Your task to perform on an android device: Open Maps and search for coffee Image 0: 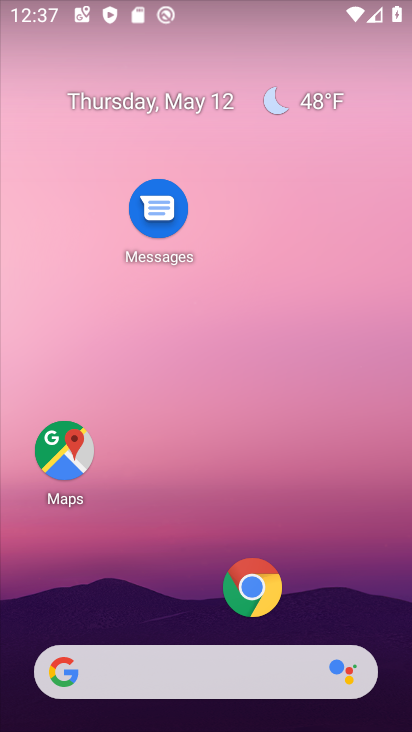
Step 0: drag from (213, 645) to (152, 18)
Your task to perform on an android device: Open Maps and search for coffee Image 1: 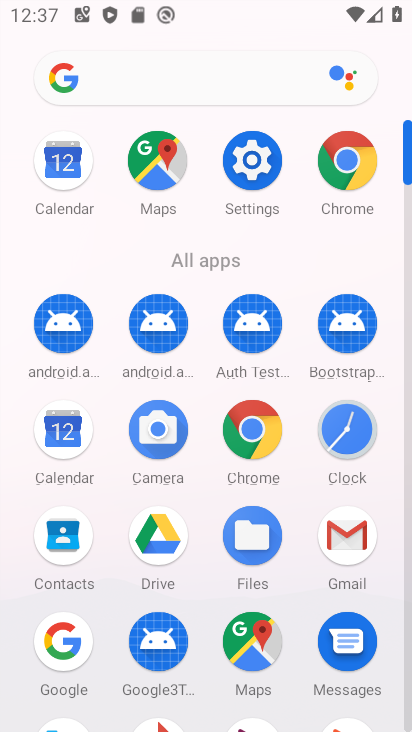
Step 1: click (247, 628)
Your task to perform on an android device: Open Maps and search for coffee Image 2: 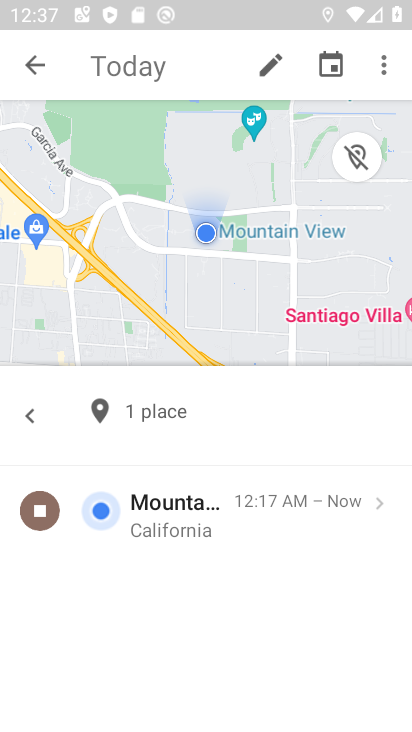
Step 2: click (21, 57)
Your task to perform on an android device: Open Maps and search for coffee Image 3: 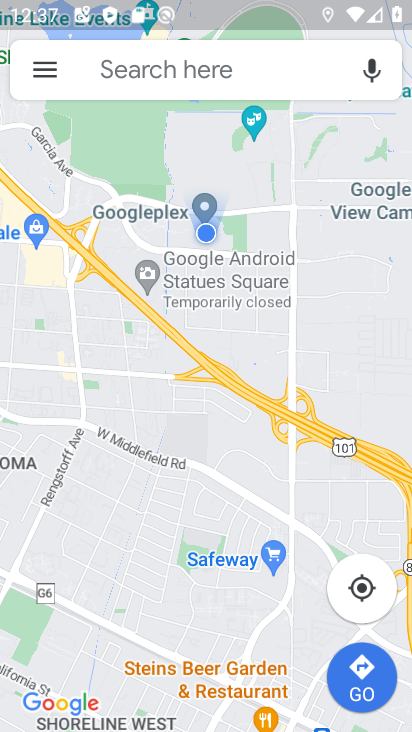
Step 3: click (146, 74)
Your task to perform on an android device: Open Maps and search for coffee Image 4: 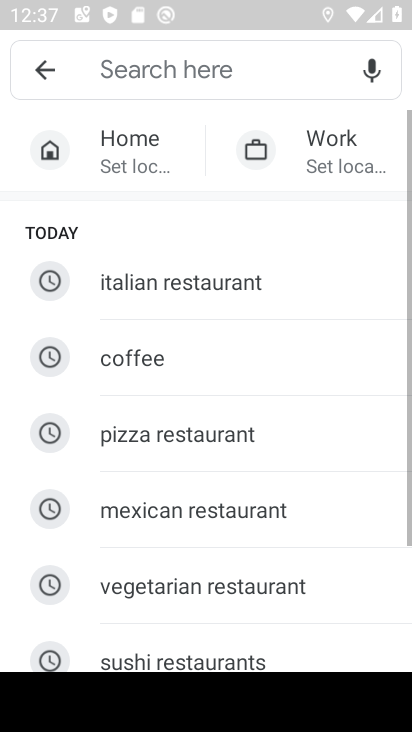
Step 4: click (169, 352)
Your task to perform on an android device: Open Maps and search for coffee Image 5: 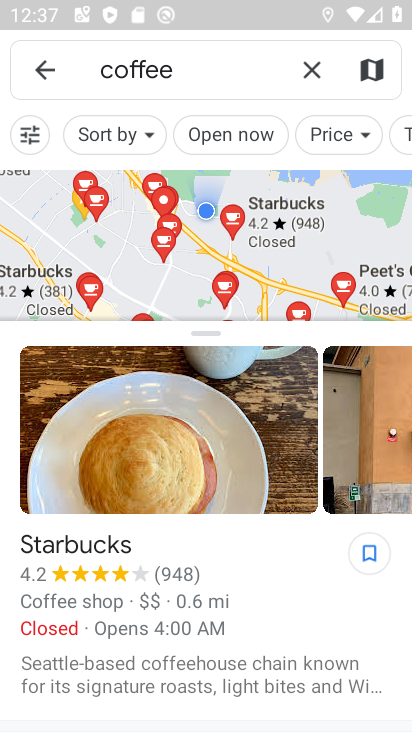
Step 5: task complete